Your task to perform on an android device: Search for vegetarian restaurants on Maps Image 0: 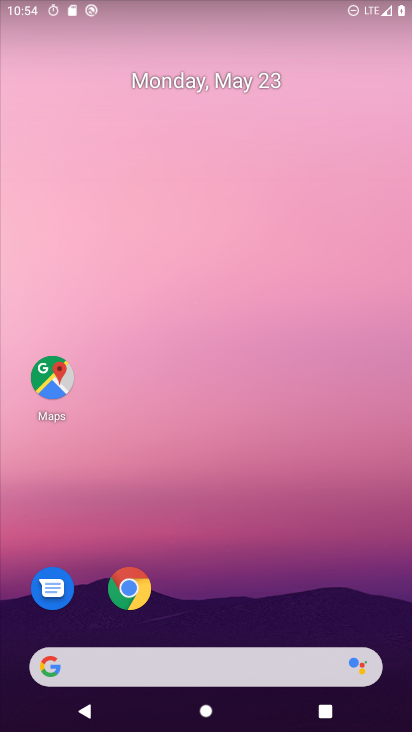
Step 0: click (48, 379)
Your task to perform on an android device: Search for vegetarian restaurants on Maps Image 1: 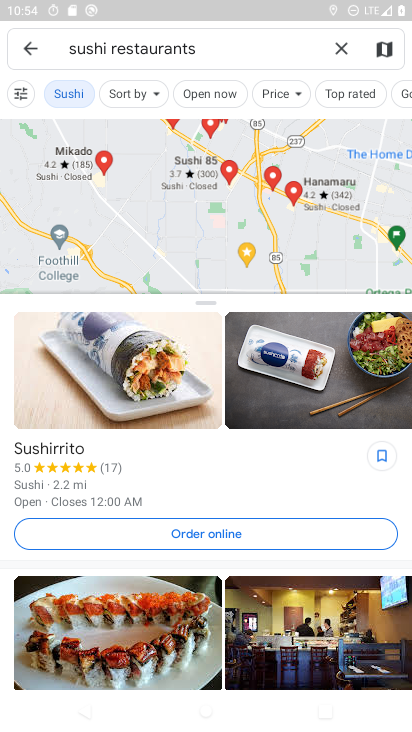
Step 1: click (339, 43)
Your task to perform on an android device: Search for vegetarian restaurants on Maps Image 2: 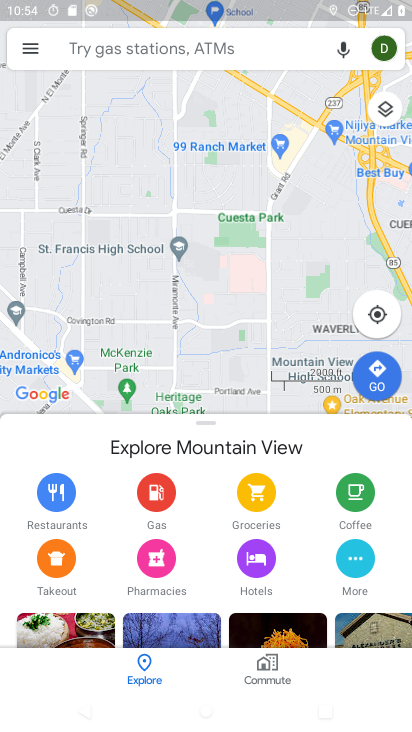
Step 2: click (61, 48)
Your task to perform on an android device: Search for vegetarian restaurants on Maps Image 3: 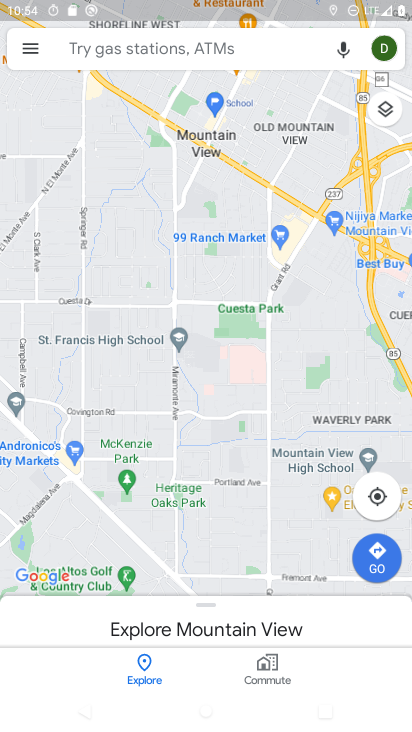
Step 3: click (72, 42)
Your task to perform on an android device: Search for vegetarian restaurants on Maps Image 4: 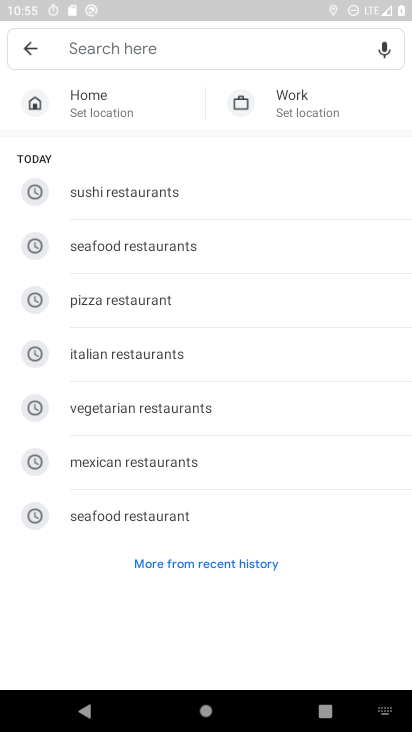
Step 4: type "vegetarian restaurants"
Your task to perform on an android device: Search for vegetarian restaurants on Maps Image 5: 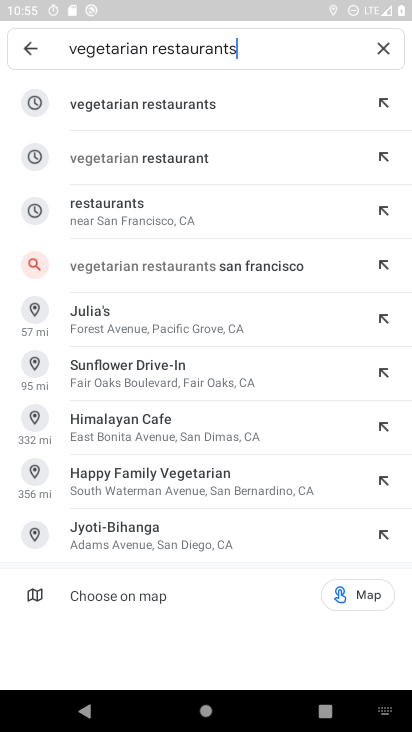
Step 5: click (95, 107)
Your task to perform on an android device: Search for vegetarian restaurants on Maps Image 6: 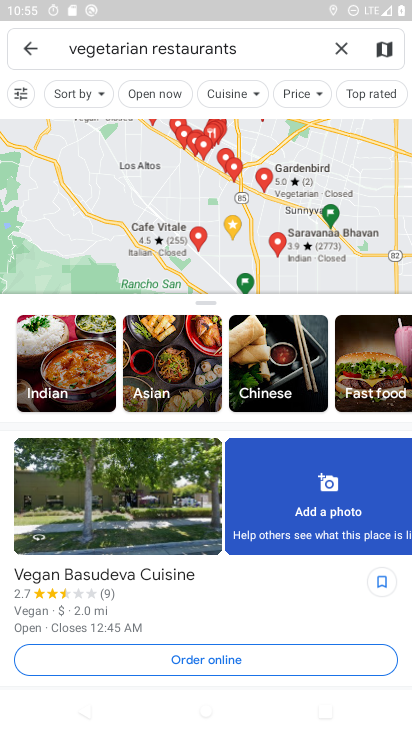
Step 6: task complete